Your task to perform on an android device: change text size in settings app Image 0: 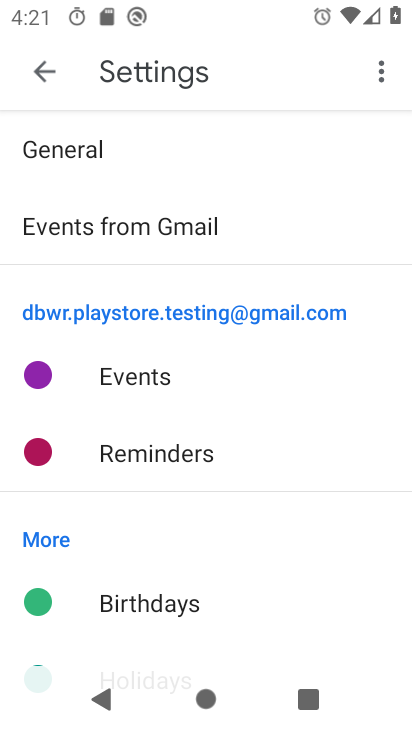
Step 0: press home button
Your task to perform on an android device: change text size in settings app Image 1: 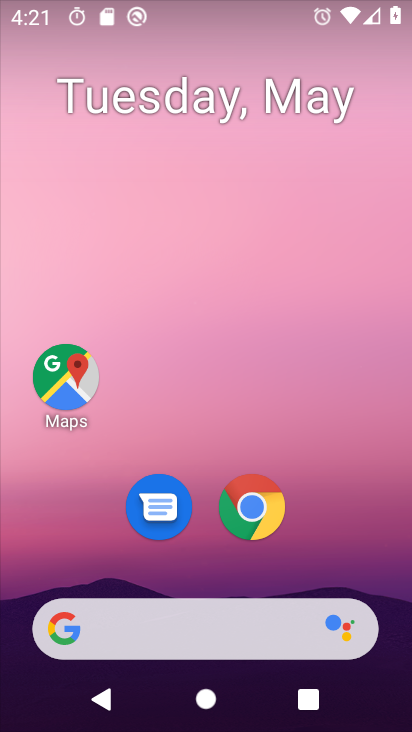
Step 1: drag from (199, 569) to (353, 7)
Your task to perform on an android device: change text size in settings app Image 2: 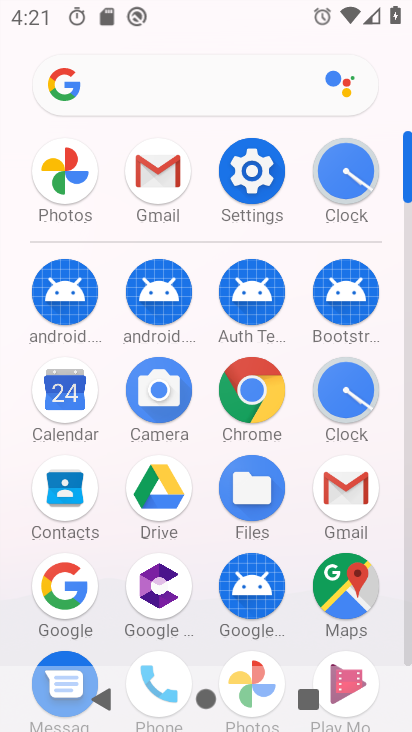
Step 2: click (266, 172)
Your task to perform on an android device: change text size in settings app Image 3: 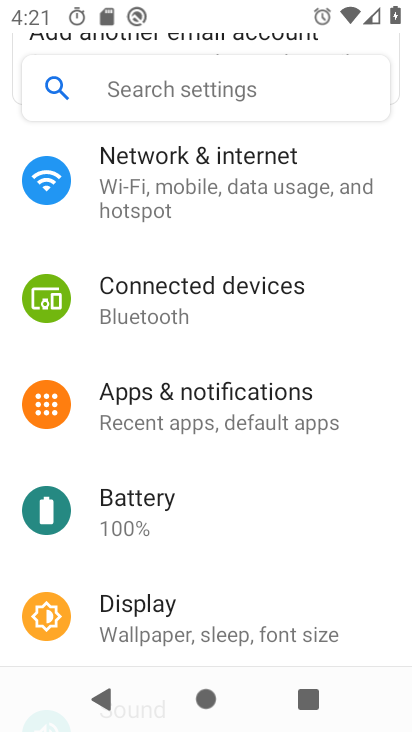
Step 3: click (225, 619)
Your task to perform on an android device: change text size in settings app Image 4: 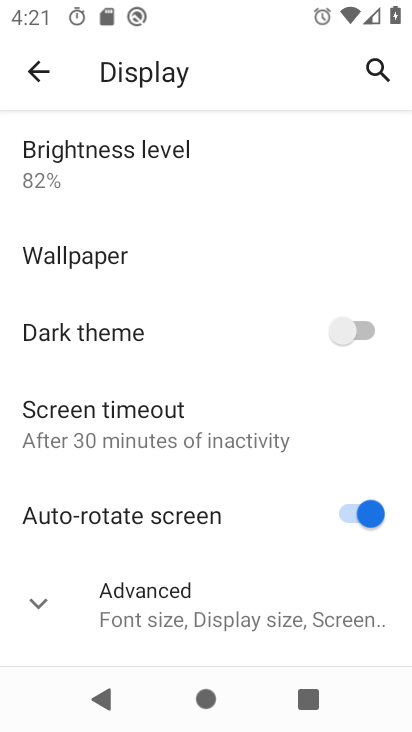
Step 4: click (188, 588)
Your task to perform on an android device: change text size in settings app Image 5: 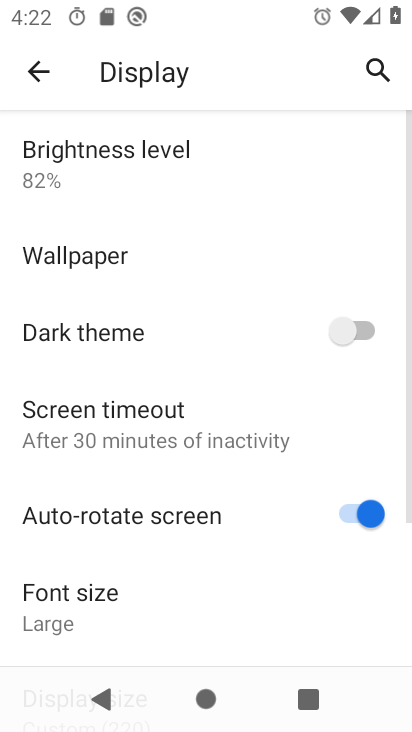
Step 5: click (145, 634)
Your task to perform on an android device: change text size in settings app Image 6: 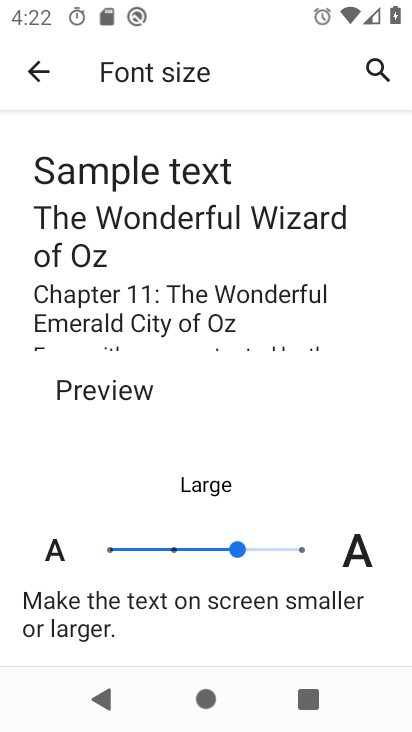
Step 6: click (196, 562)
Your task to perform on an android device: change text size in settings app Image 7: 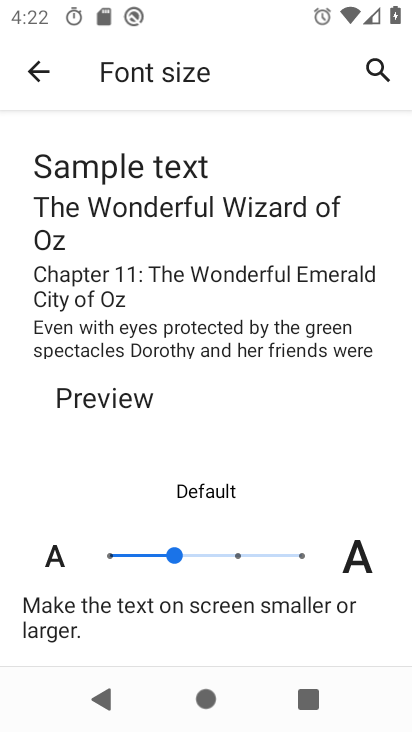
Step 7: task complete